Your task to perform on an android device: Go to Android settings Image 0: 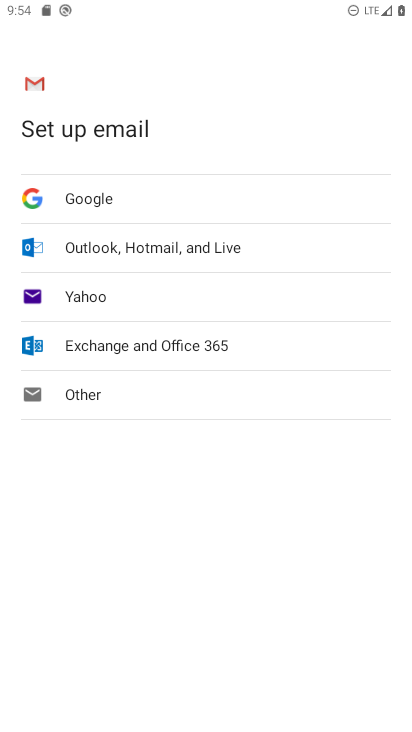
Step 0: press home button
Your task to perform on an android device: Go to Android settings Image 1: 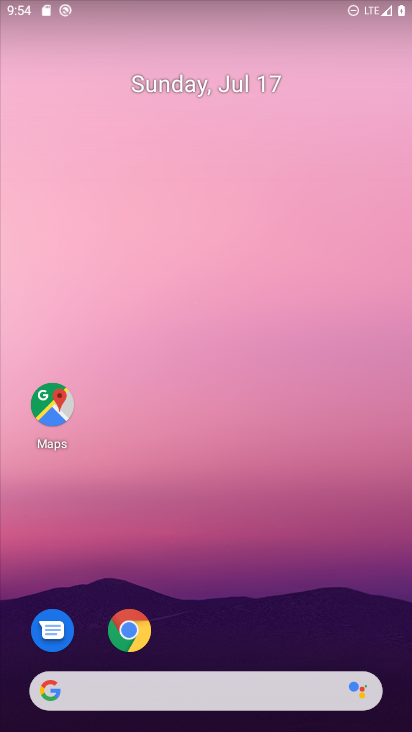
Step 1: drag from (330, 642) to (157, 9)
Your task to perform on an android device: Go to Android settings Image 2: 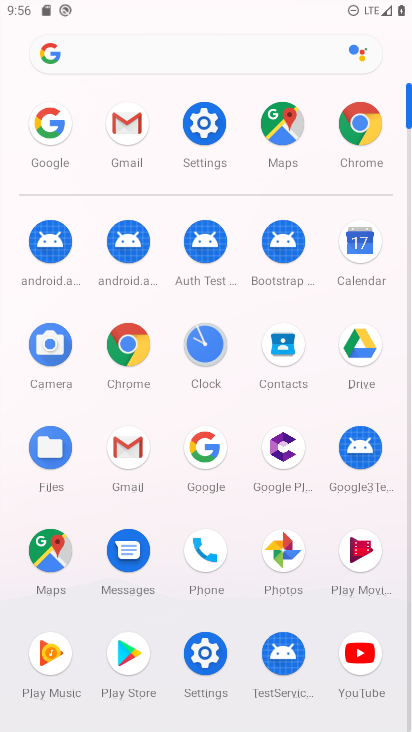
Step 2: click (192, 653)
Your task to perform on an android device: Go to Android settings Image 3: 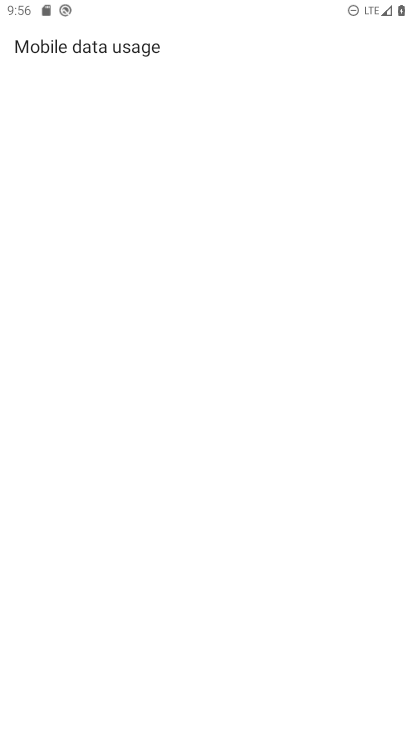
Step 3: task complete